Your task to perform on an android device: What is the news today? Image 0: 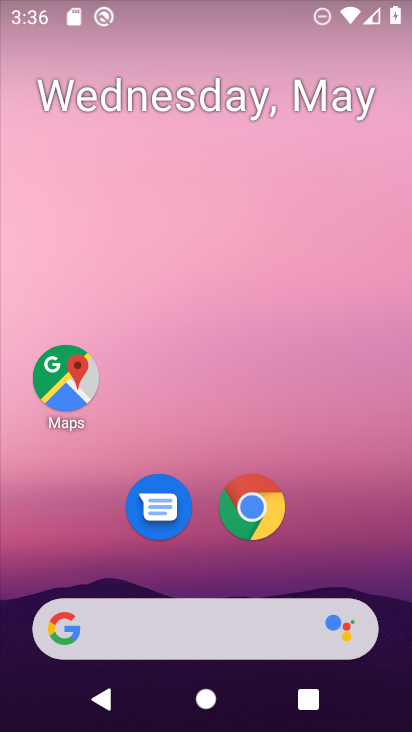
Step 0: click (237, 167)
Your task to perform on an android device: What is the news today? Image 1: 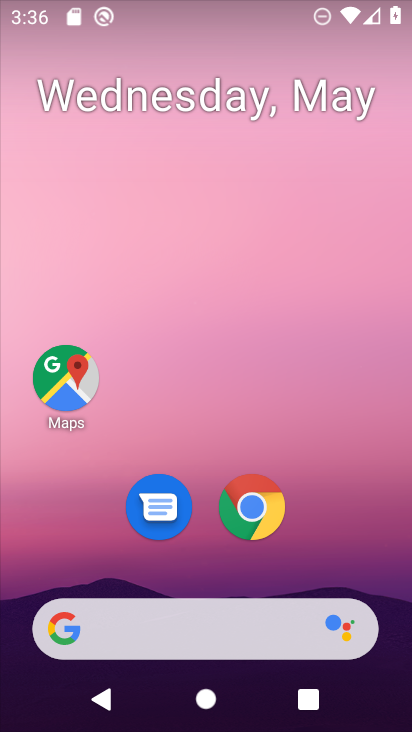
Step 1: click (178, 623)
Your task to perform on an android device: What is the news today? Image 2: 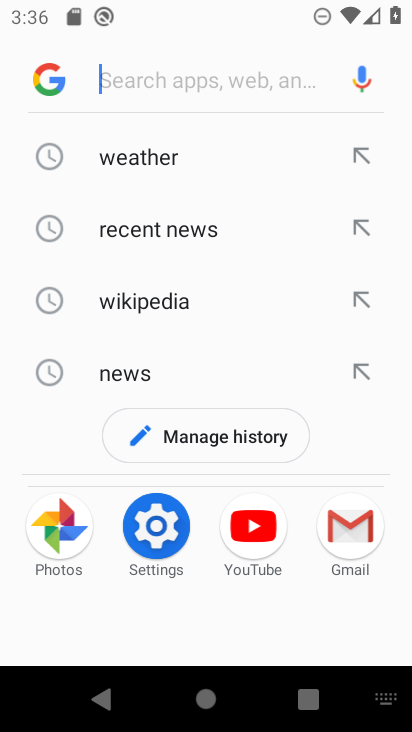
Step 2: type "news today ?"
Your task to perform on an android device: What is the news today? Image 3: 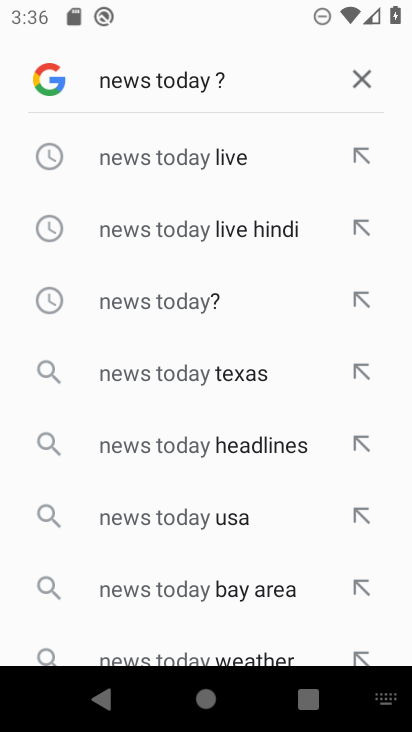
Step 3: click (210, 318)
Your task to perform on an android device: What is the news today? Image 4: 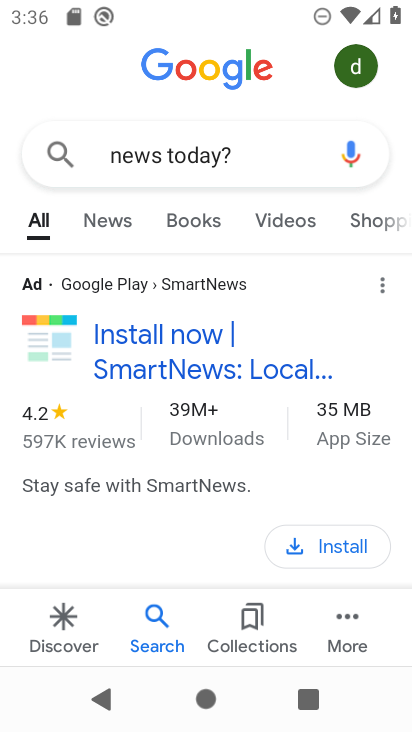
Step 4: task complete